Your task to perform on an android device: snooze an email in the gmail app Image 0: 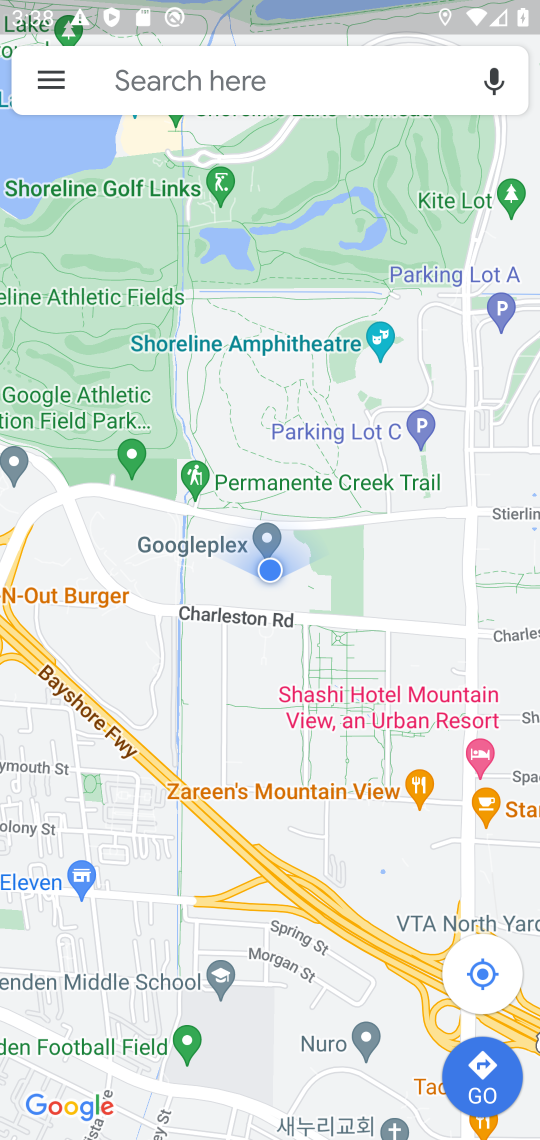
Step 0: press home button
Your task to perform on an android device: snooze an email in the gmail app Image 1: 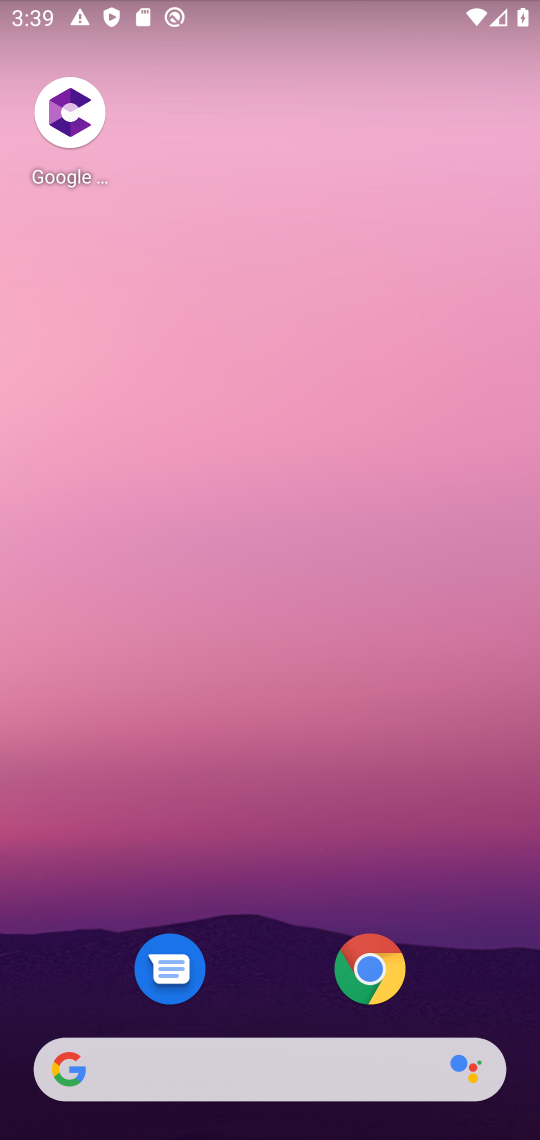
Step 1: drag from (284, 936) to (274, 190)
Your task to perform on an android device: snooze an email in the gmail app Image 2: 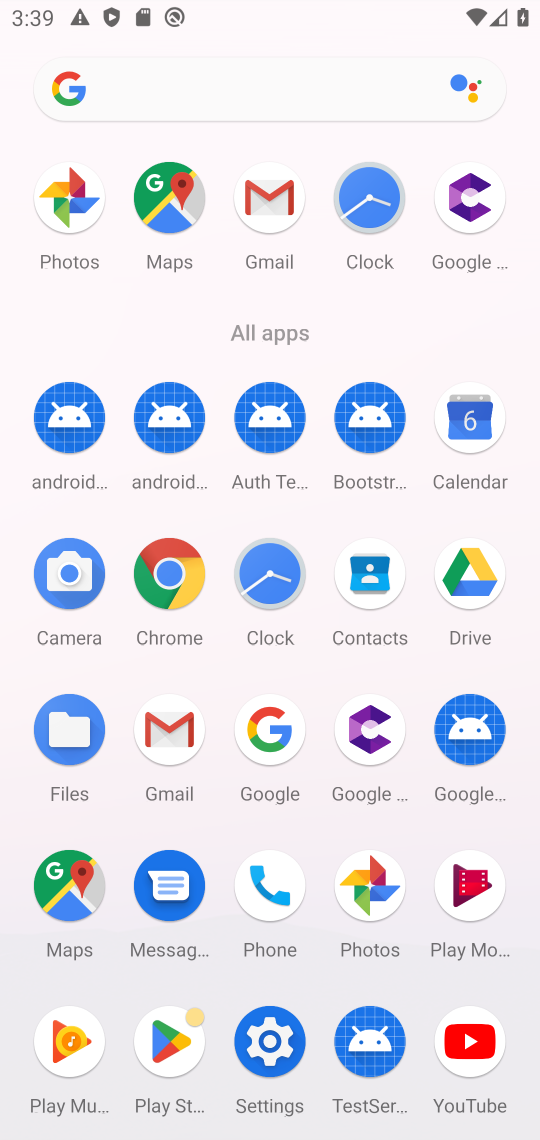
Step 2: click (272, 199)
Your task to perform on an android device: snooze an email in the gmail app Image 3: 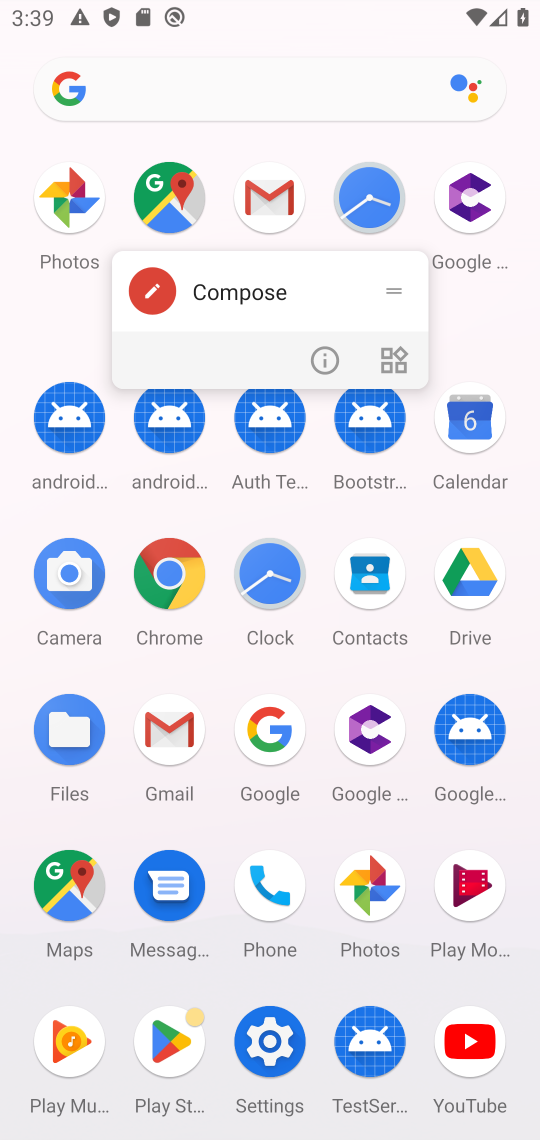
Step 3: click (274, 199)
Your task to perform on an android device: snooze an email in the gmail app Image 4: 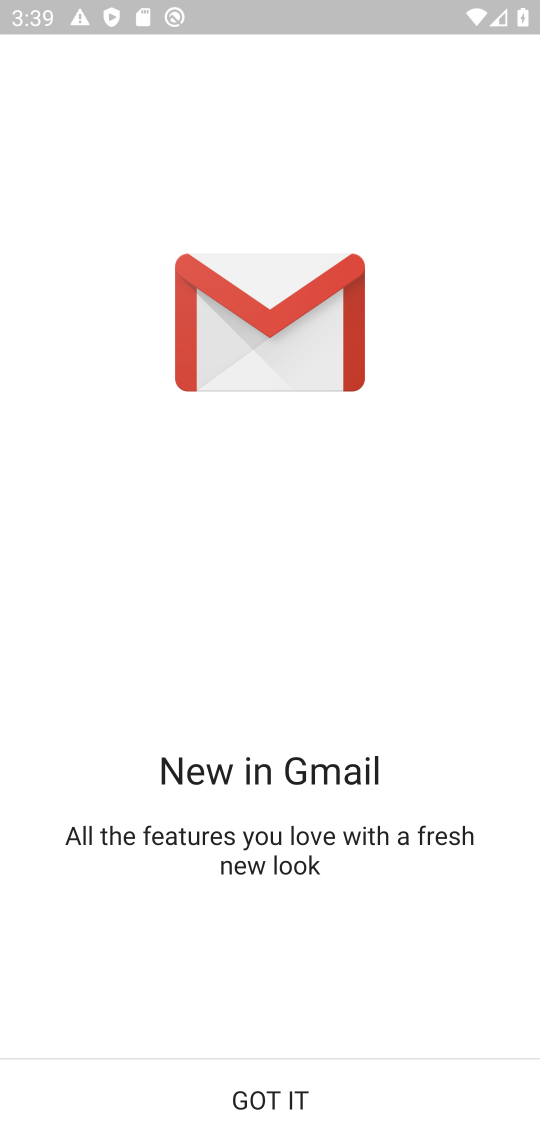
Step 4: click (272, 1109)
Your task to perform on an android device: snooze an email in the gmail app Image 5: 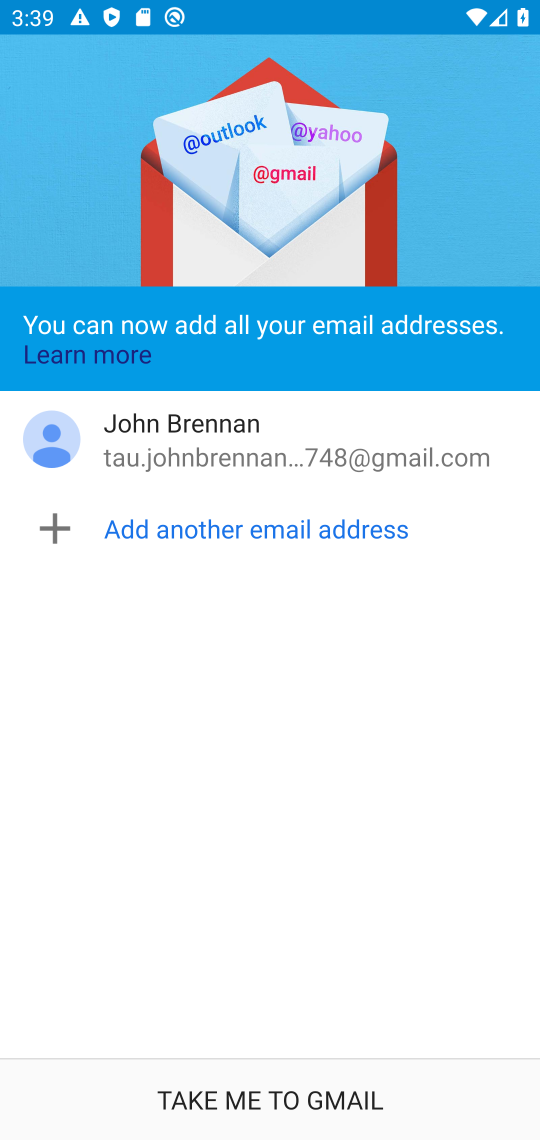
Step 5: click (299, 1105)
Your task to perform on an android device: snooze an email in the gmail app Image 6: 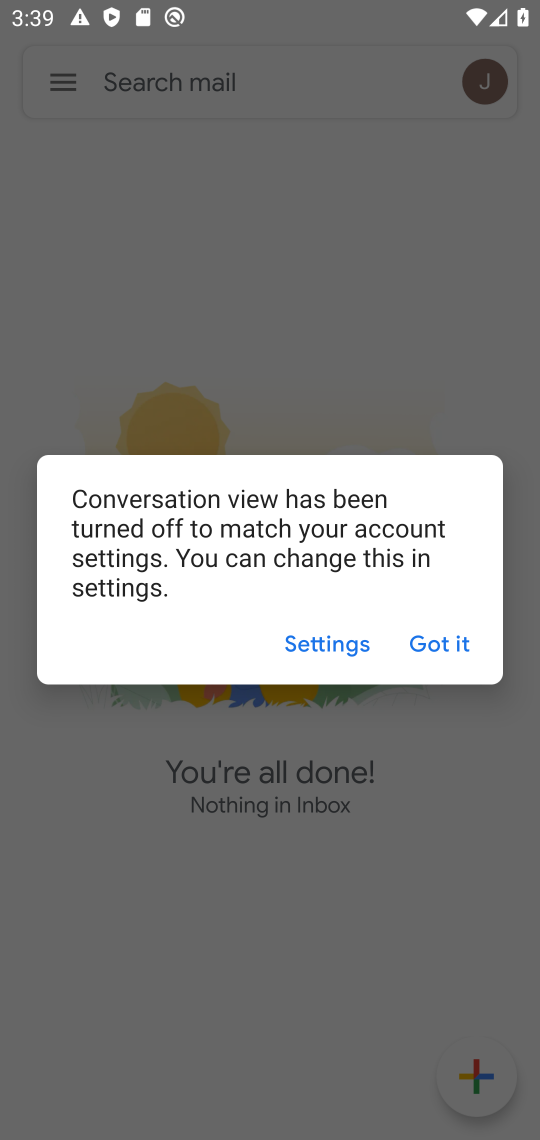
Step 6: click (420, 645)
Your task to perform on an android device: snooze an email in the gmail app Image 7: 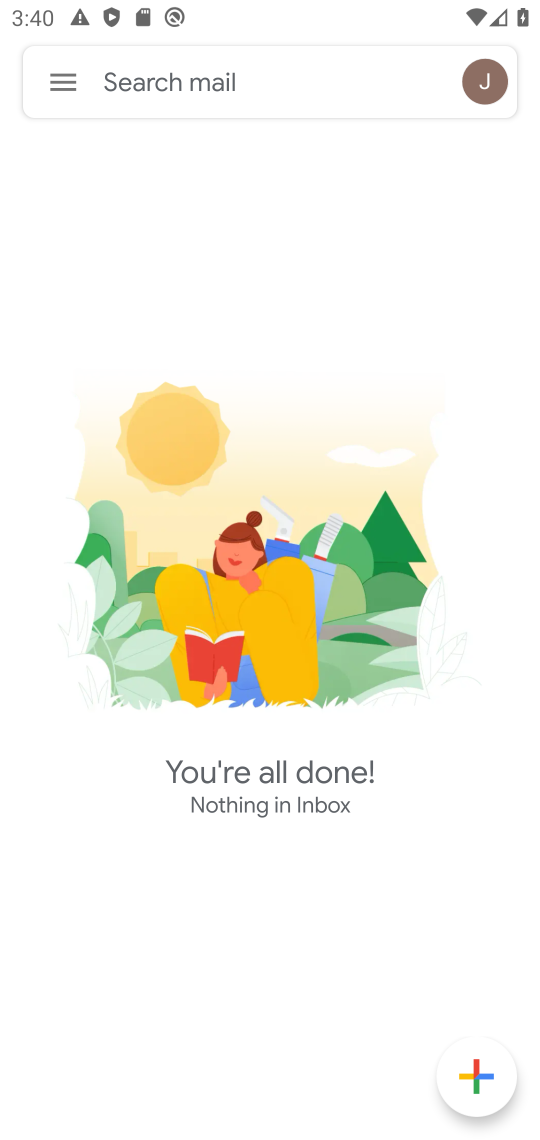
Step 7: click (67, 89)
Your task to perform on an android device: snooze an email in the gmail app Image 8: 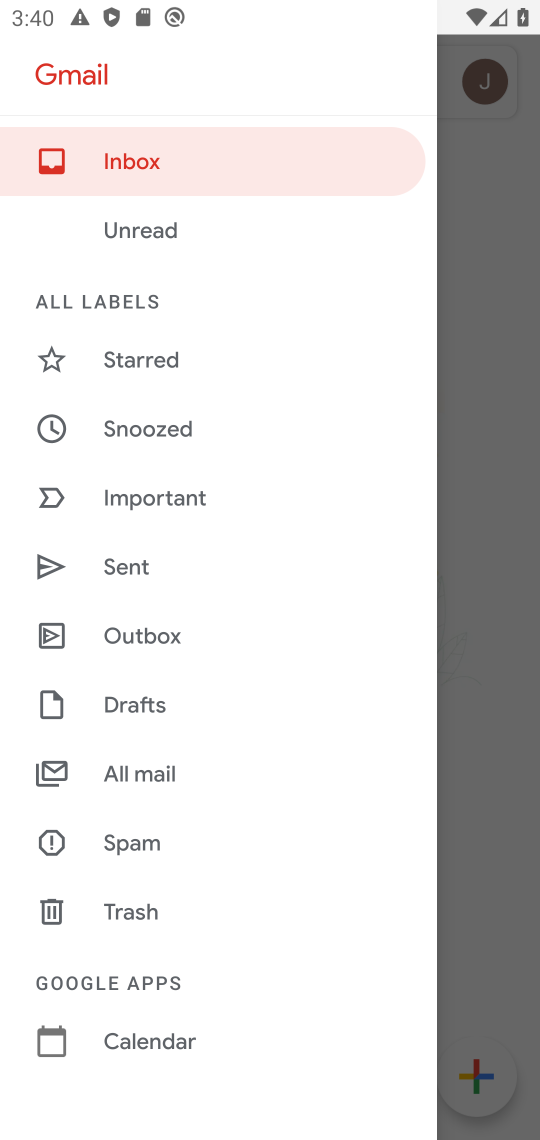
Step 8: click (136, 433)
Your task to perform on an android device: snooze an email in the gmail app Image 9: 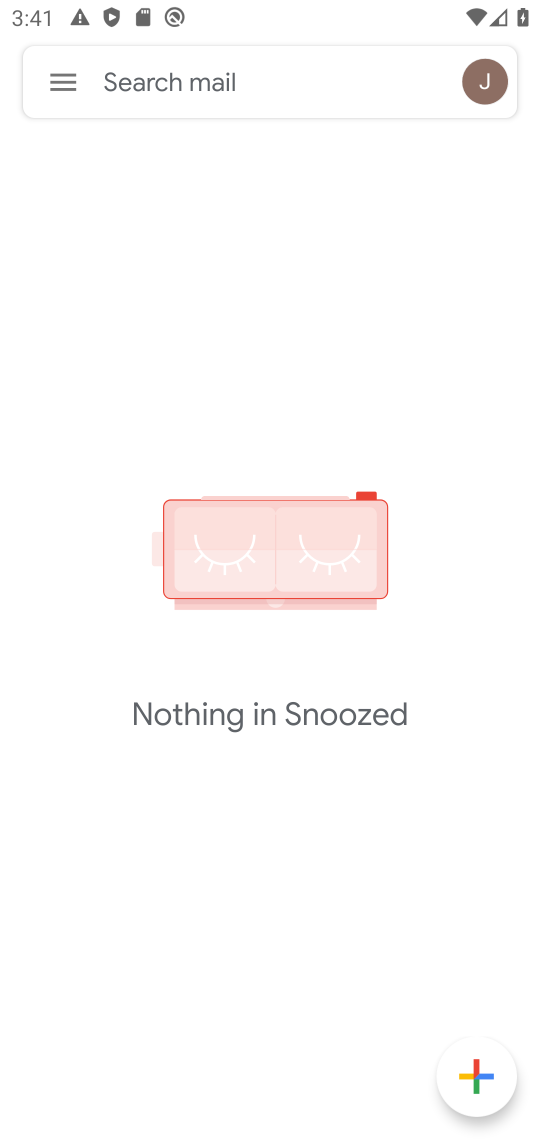
Step 9: task complete